Your task to perform on an android device: search for starred emails in the gmail app Image 0: 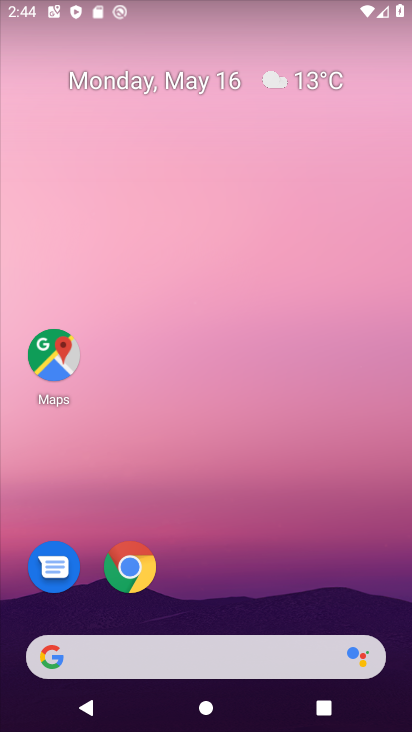
Step 0: drag from (295, 582) to (323, 38)
Your task to perform on an android device: search for starred emails in the gmail app Image 1: 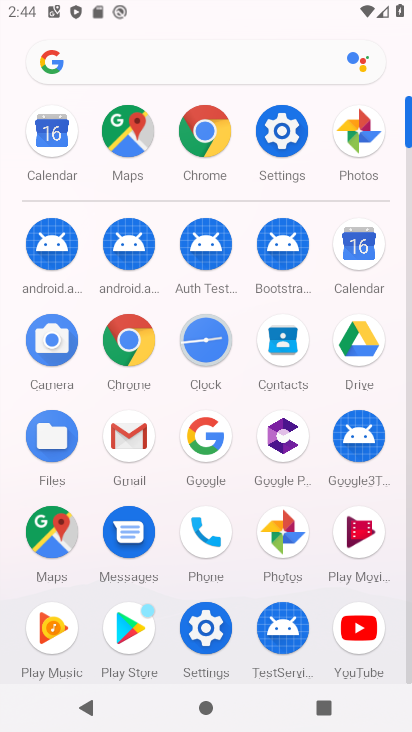
Step 1: click (137, 441)
Your task to perform on an android device: search for starred emails in the gmail app Image 2: 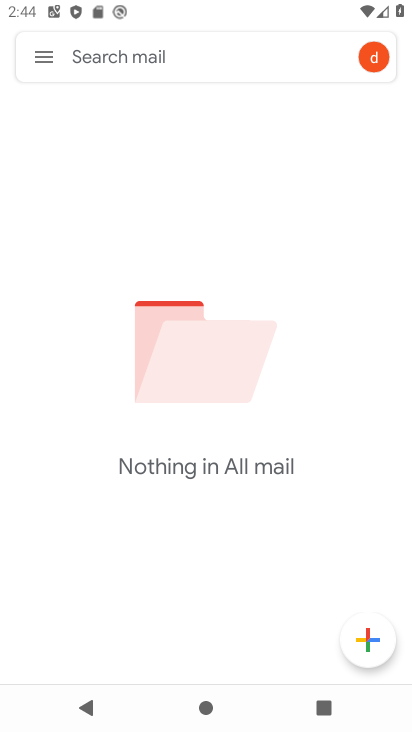
Step 2: click (47, 55)
Your task to perform on an android device: search for starred emails in the gmail app Image 3: 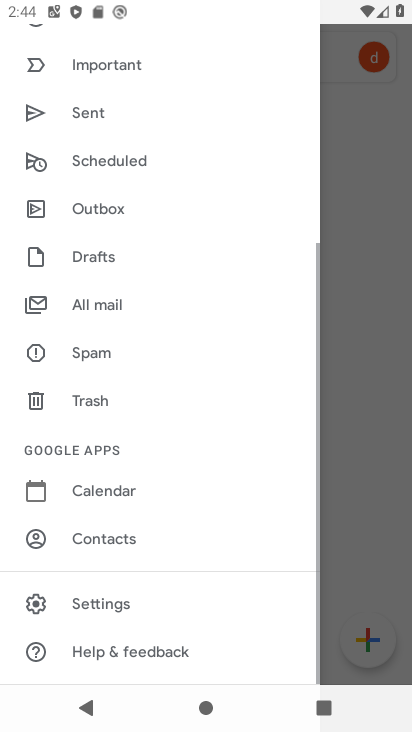
Step 3: drag from (142, 200) to (124, 652)
Your task to perform on an android device: search for starred emails in the gmail app Image 4: 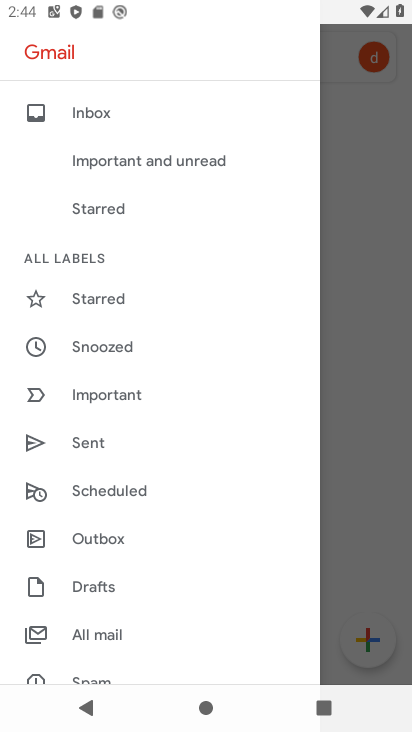
Step 4: click (117, 305)
Your task to perform on an android device: search for starred emails in the gmail app Image 5: 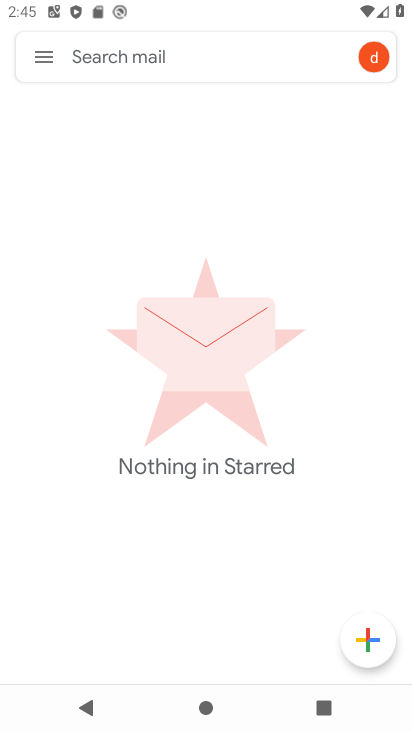
Step 5: task complete